Your task to perform on an android device: Toggle the flashlight Image 0: 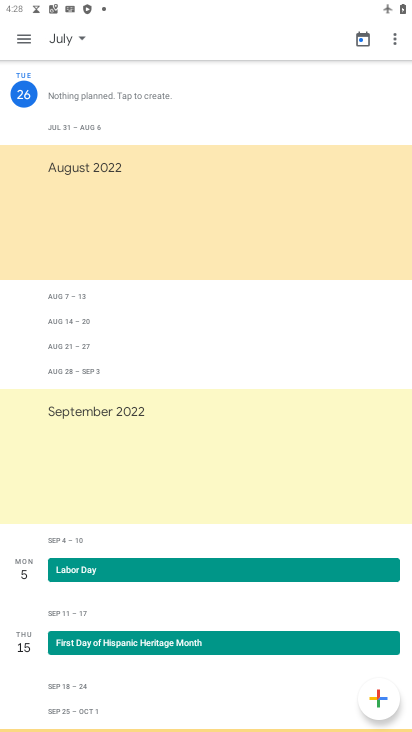
Step 0: drag from (314, 0) to (306, 698)
Your task to perform on an android device: Toggle the flashlight Image 1: 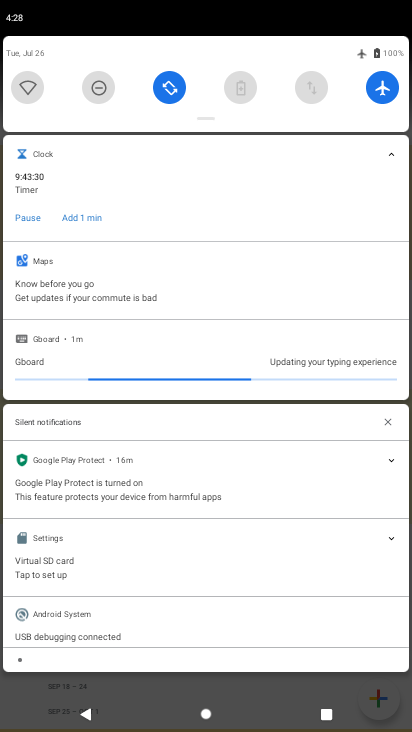
Step 1: drag from (202, 91) to (147, 647)
Your task to perform on an android device: Toggle the flashlight Image 2: 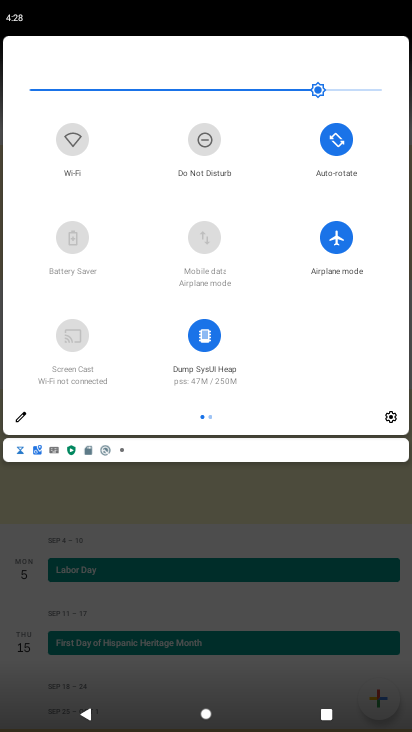
Step 2: click (21, 408)
Your task to perform on an android device: Toggle the flashlight Image 3: 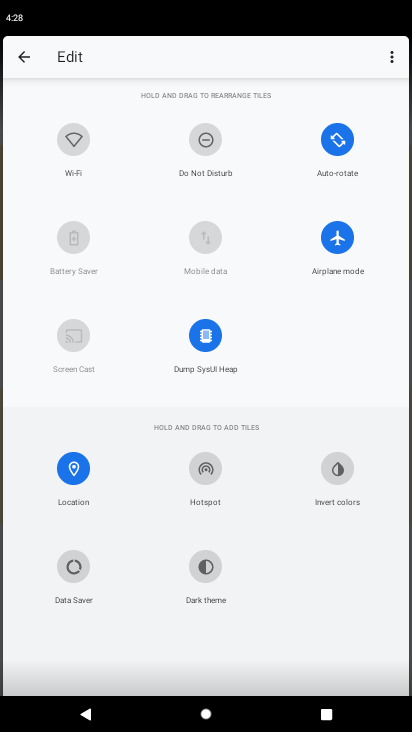
Step 3: task complete